Your task to perform on an android device: toggle show notifications on the lock screen Image 0: 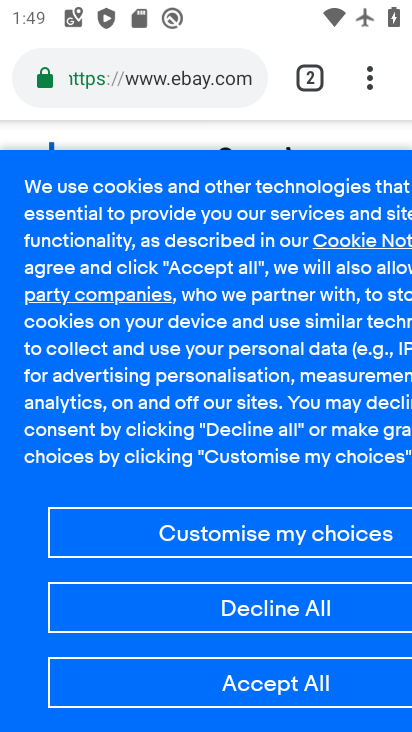
Step 0: press home button
Your task to perform on an android device: toggle show notifications on the lock screen Image 1: 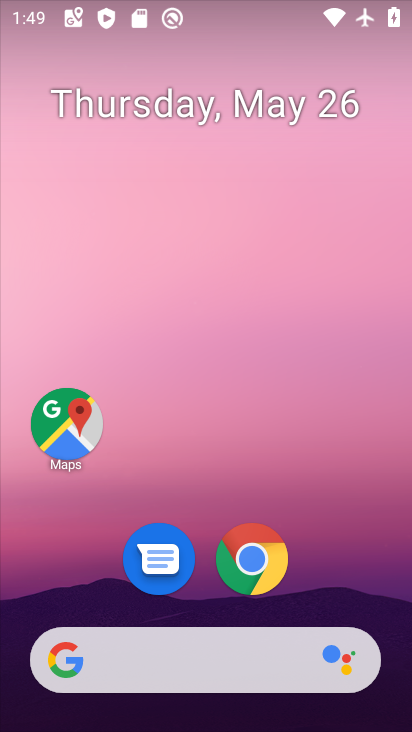
Step 1: drag from (166, 661) to (287, 117)
Your task to perform on an android device: toggle show notifications on the lock screen Image 2: 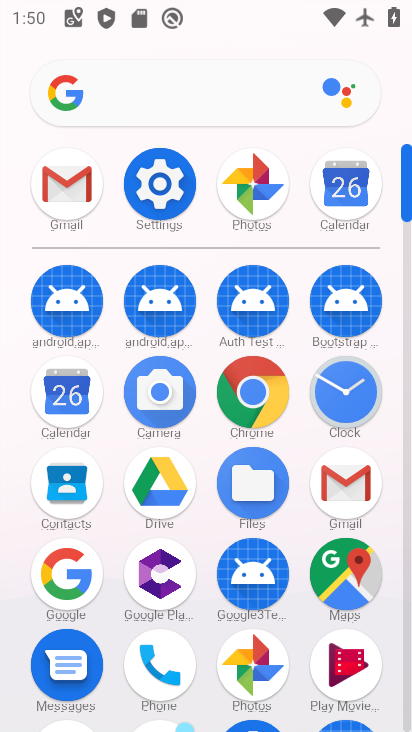
Step 2: click (152, 182)
Your task to perform on an android device: toggle show notifications on the lock screen Image 3: 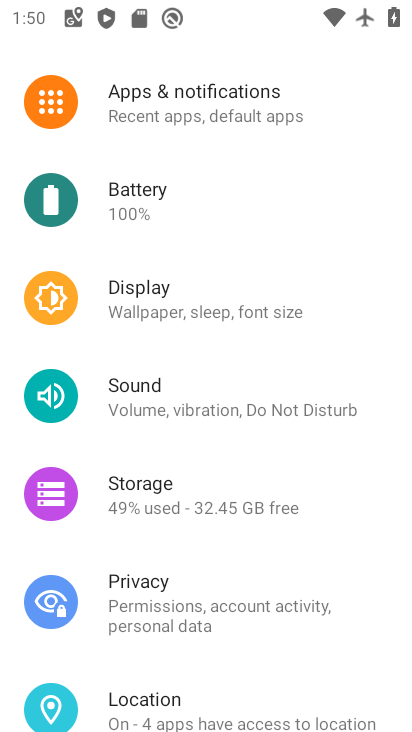
Step 3: drag from (243, 465) to (298, 221)
Your task to perform on an android device: toggle show notifications on the lock screen Image 4: 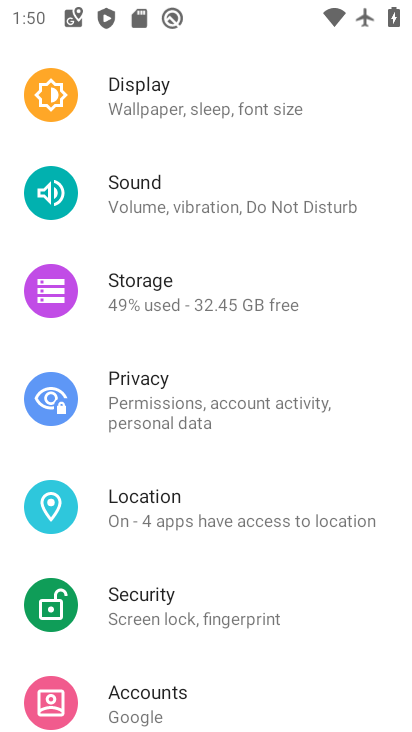
Step 4: drag from (298, 148) to (233, 657)
Your task to perform on an android device: toggle show notifications on the lock screen Image 5: 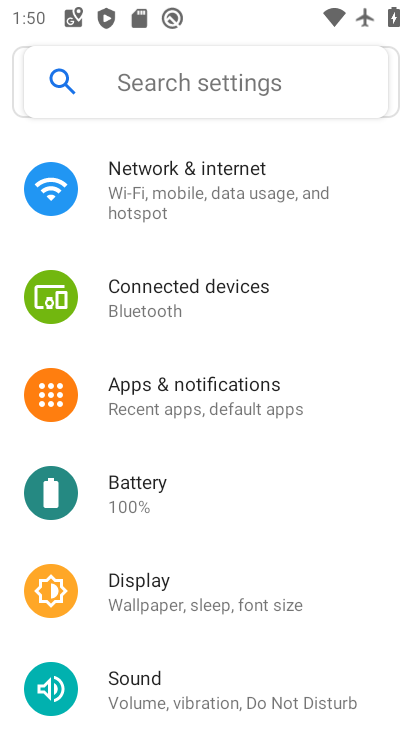
Step 5: click (222, 406)
Your task to perform on an android device: toggle show notifications on the lock screen Image 6: 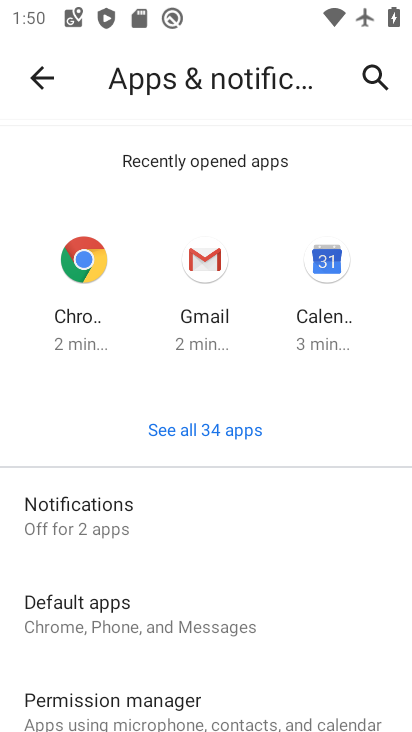
Step 6: click (115, 526)
Your task to perform on an android device: toggle show notifications on the lock screen Image 7: 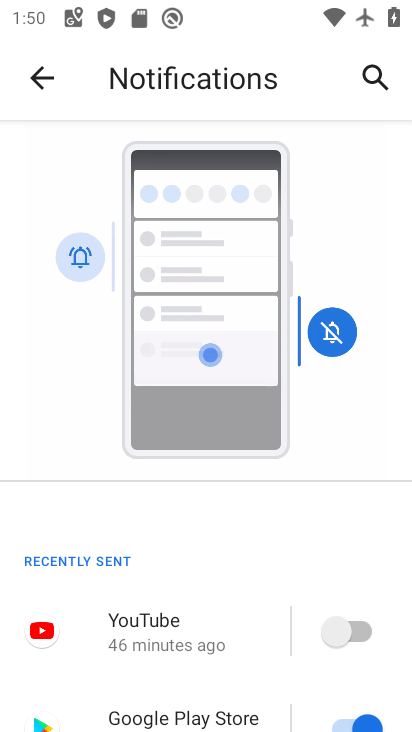
Step 7: drag from (188, 660) to (311, 30)
Your task to perform on an android device: toggle show notifications on the lock screen Image 8: 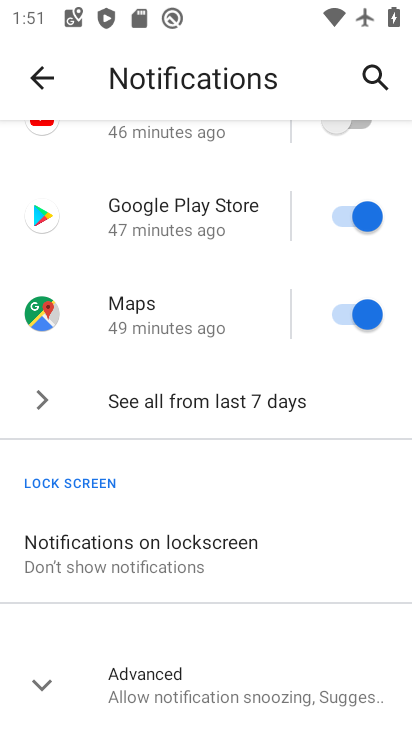
Step 8: drag from (188, 618) to (234, 431)
Your task to perform on an android device: toggle show notifications on the lock screen Image 9: 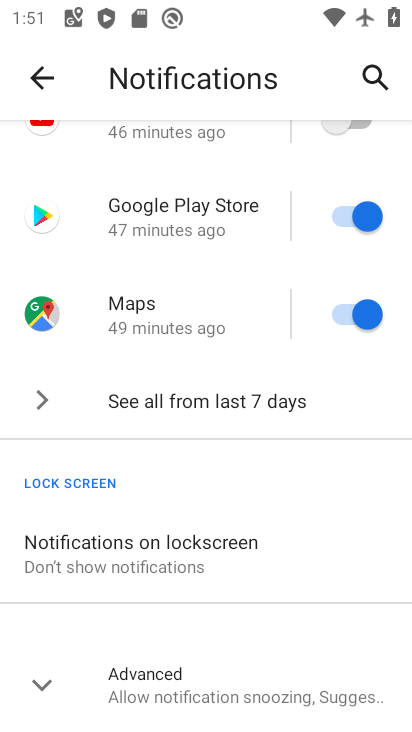
Step 9: click (161, 559)
Your task to perform on an android device: toggle show notifications on the lock screen Image 10: 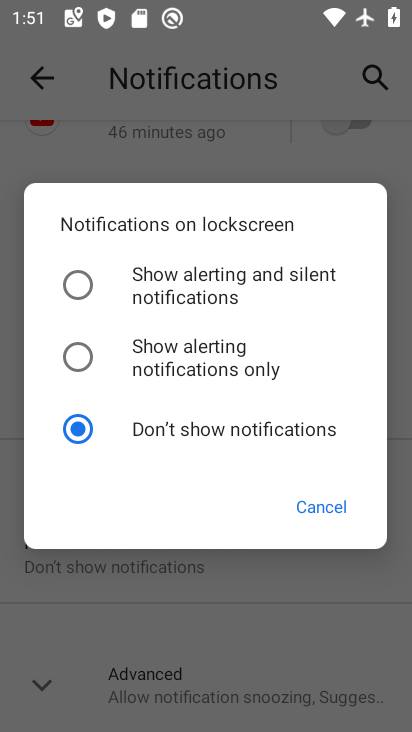
Step 10: click (86, 280)
Your task to perform on an android device: toggle show notifications on the lock screen Image 11: 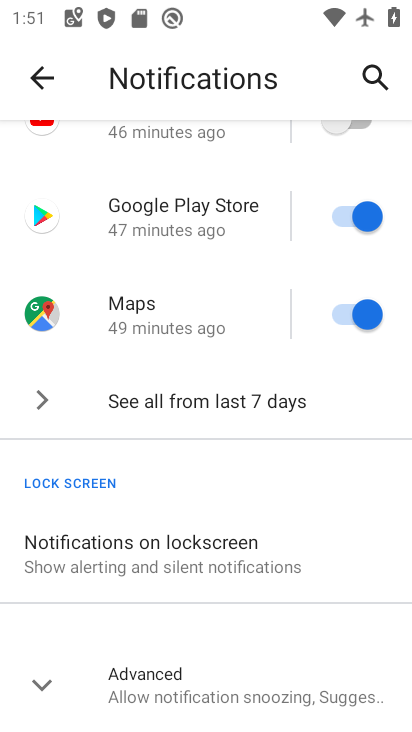
Step 11: task complete